Your task to perform on an android device: change alarm snooze length Image 0: 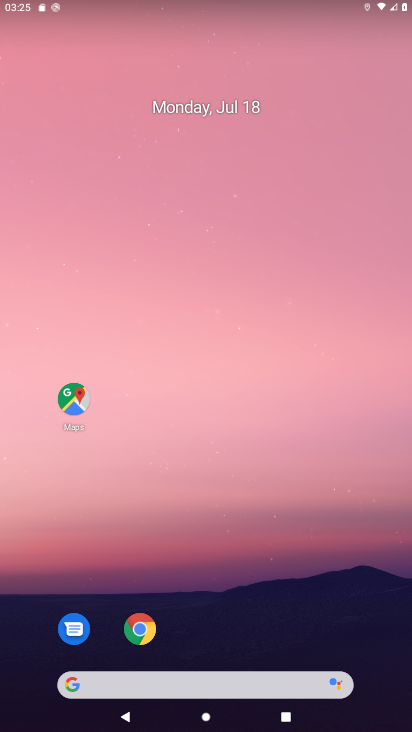
Step 0: drag from (345, 606) to (350, 116)
Your task to perform on an android device: change alarm snooze length Image 1: 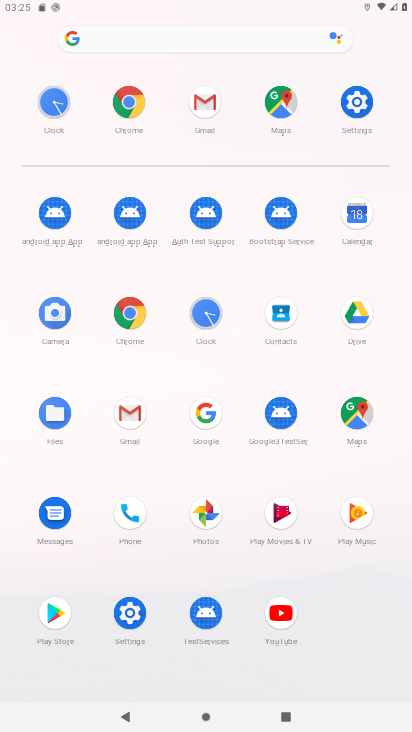
Step 1: click (207, 315)
Your task to perform on an android device: change alarm snooze length Image 2: 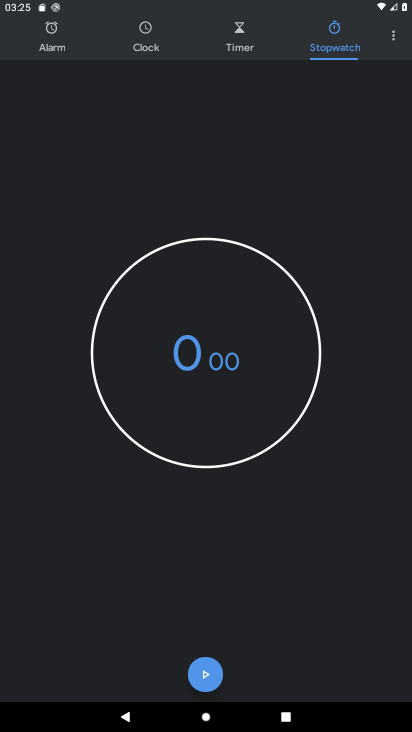
Step 2: click (391, 41)
Your task to perform on an android device: change alarm snooze length Image 3: 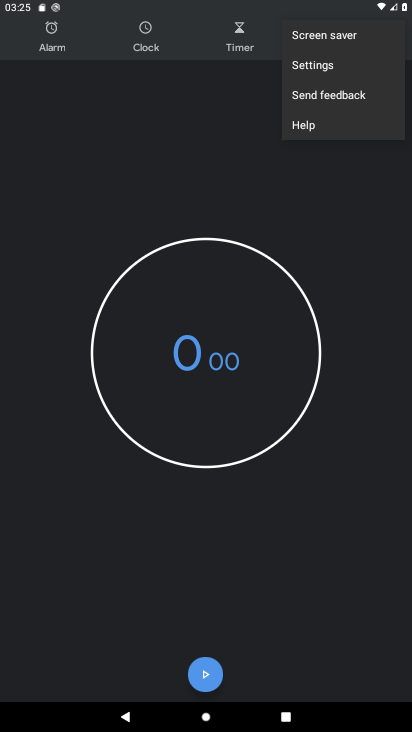
Step 3: click (341, 65)
Your task to perform on an android device: change alarm snooze length Image 4: 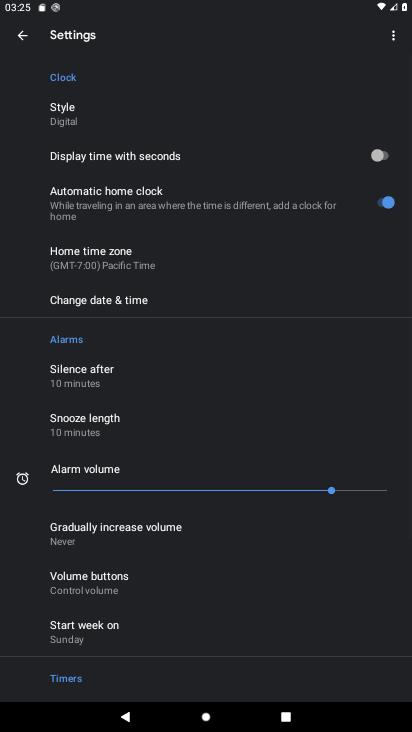
Step 4: drag from (298, 313) to (299, 249)
Your task to perform on an android device: change alarm snooze length Image 5: 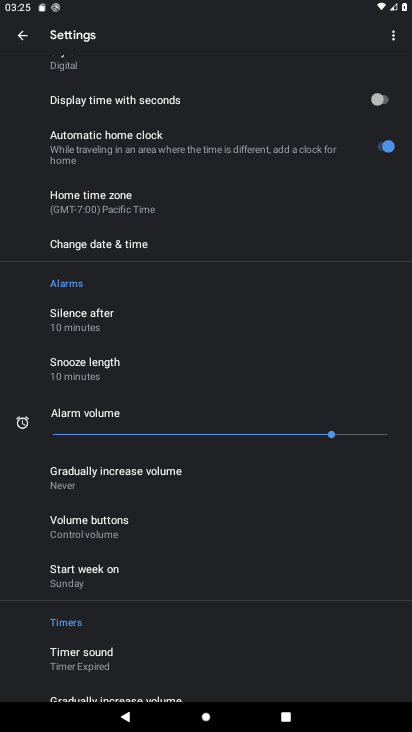
Step 5: drag from (288, 337) to (287, 251)
Your task to perform on an android device: change alarm snooze length Image 6: 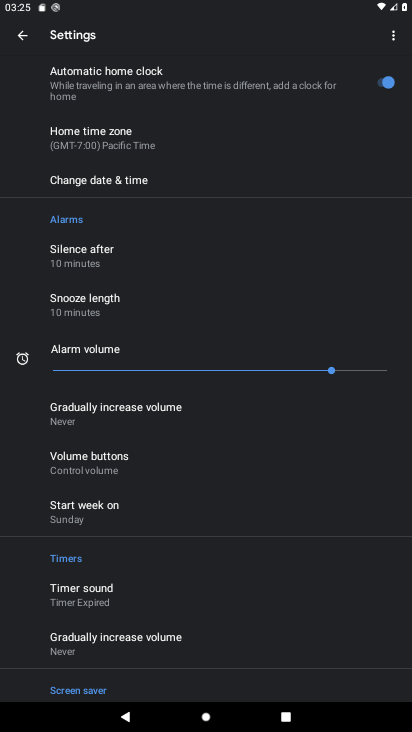
Step 6: drag from (278, 335) to (279, 231)
Your task to perform on an android device: change alarm snooze length Image 7: 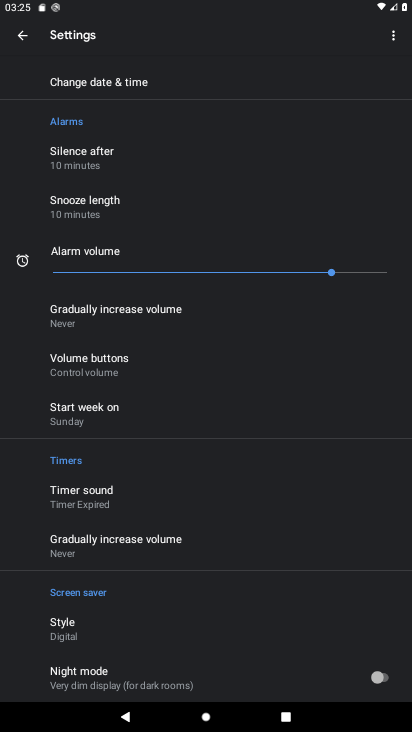
Step 7: drag from (273, 363) to (270, 236)
Your task to perform on an android device: change alarm snooze length Image 8: 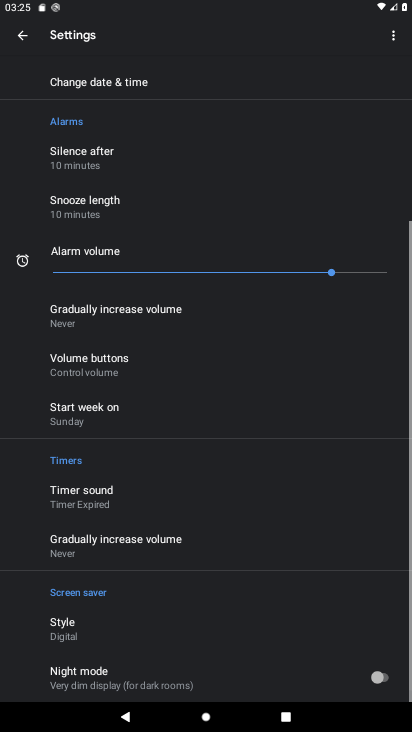
Step 8: click (189, 214)
Your task to perform on an android device: change alarm snooze length Image 9: 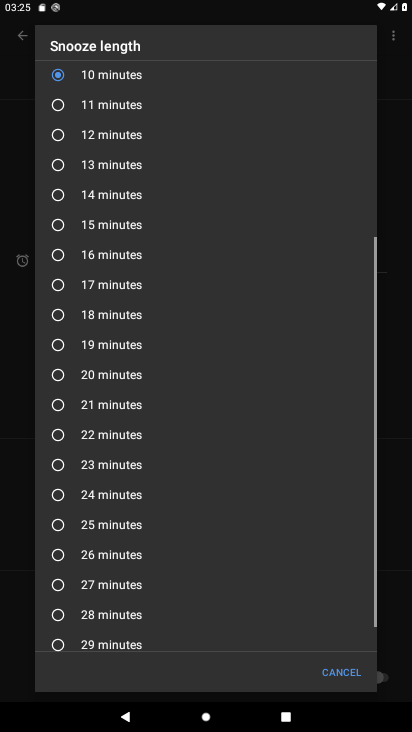
Step 9: click (141, 264)
Your task to perform on an android device: change alarm snooze length Image 10: 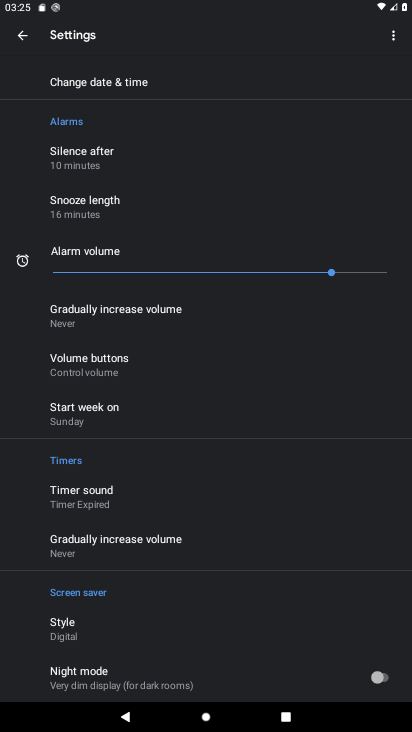
Step 10: task complete